Your task to perform on an android device: Go to accessibility settings Image 0: 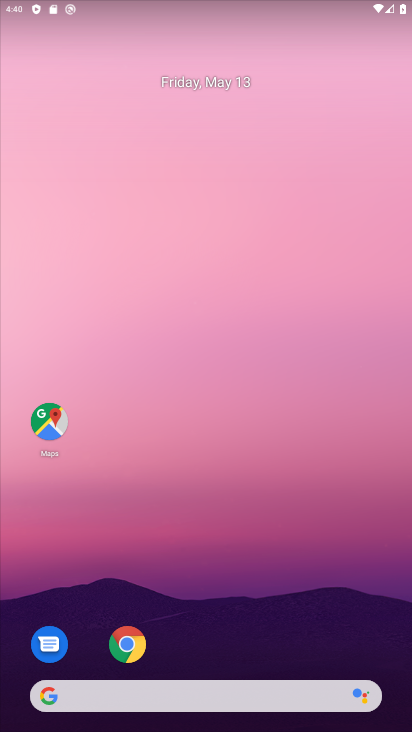
Step 0: drag from (236, 623) to (253, 185)
Your task to perform on an android device: Go to accessibility settings Image 1: 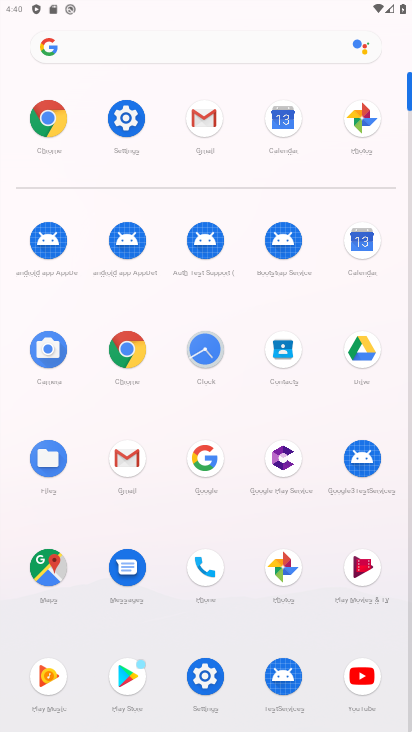
Step 1: click (107, 123)
Your task to perform on an android device: Go to accessibility settings Image 2: 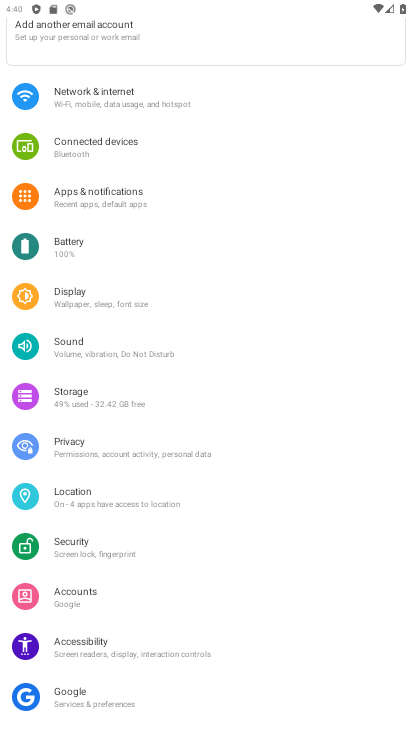
Step 2: click (137, 626)
Your task to perform on an android device: Go to accessibility settings Image 3: 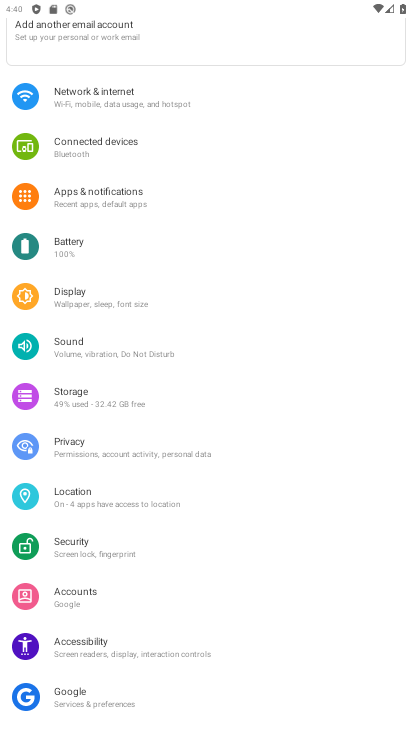
Step 3: click (82, 643)
Your task to perform on an android device: Go to accessibility settings Image 4: 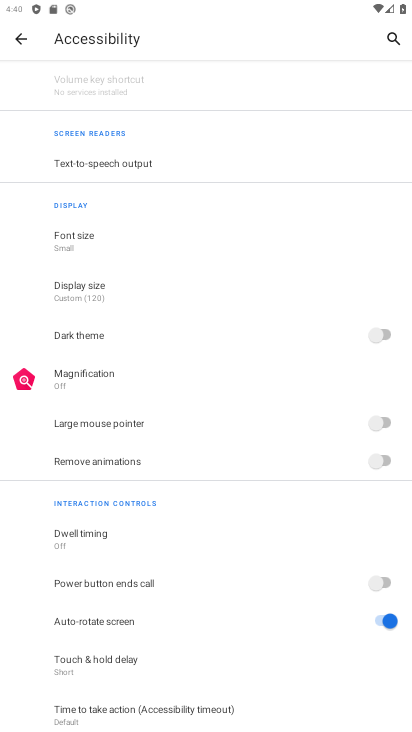
Step 4: task complete